Your task to perform on an android device: Open sound settings Image 0: 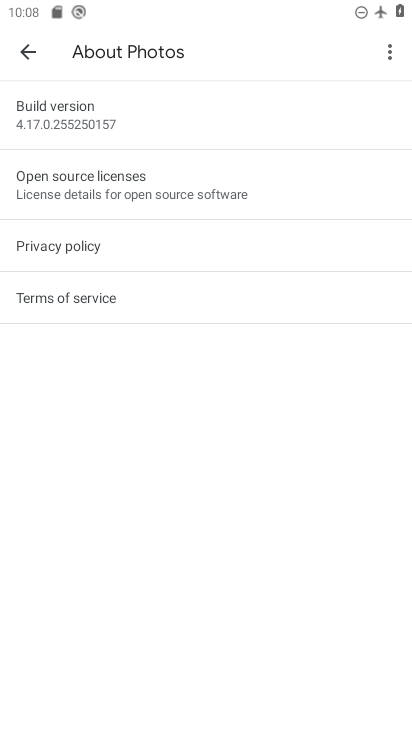
Step 0: press home button
Your task to perform on an android device: Open sound settings Image 1: 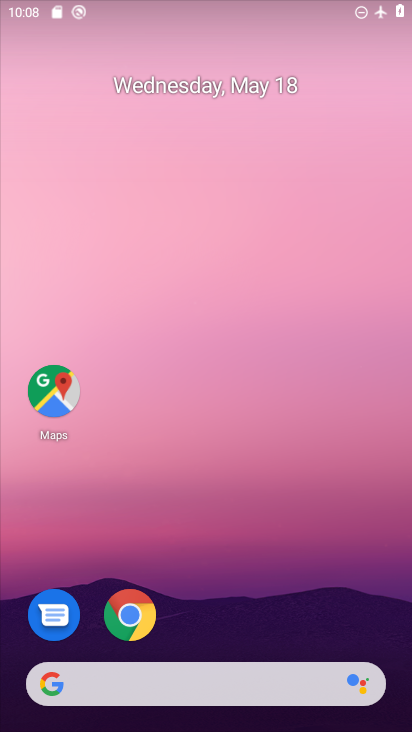
Step 1: drag from (255, 578) to (276, 73)
Your task to perform on an android device: Open sound settings Image 2: 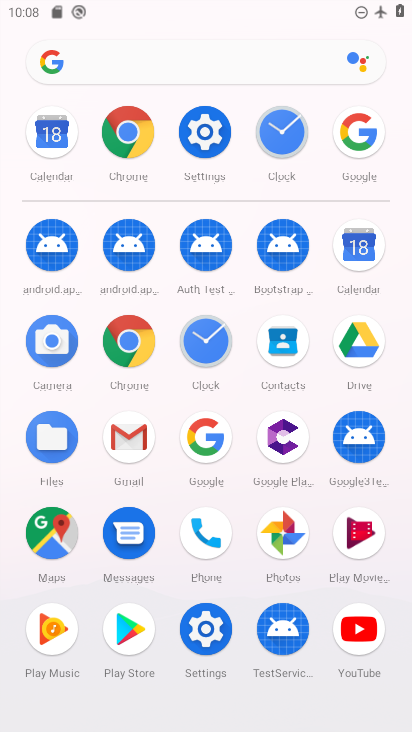
Step 2: click (204, 133)
Your task to perform on an android device: Open sound settings Image 3: 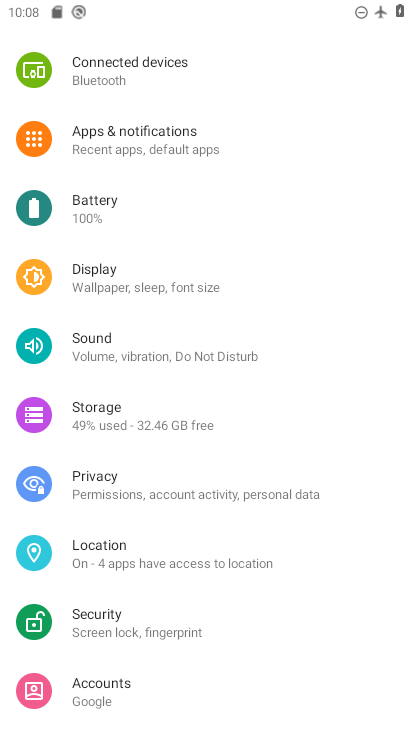
Step 3: click (100, 338)
Your task to perform on an android device: Open sound settings Image 4: 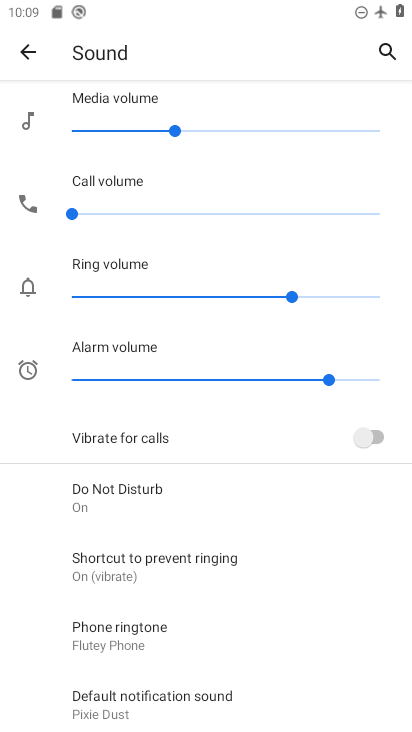
Step 4: task complete